Your task to perform on an android device: Open the Play Movies app and select the watchlist tab. Image 0: 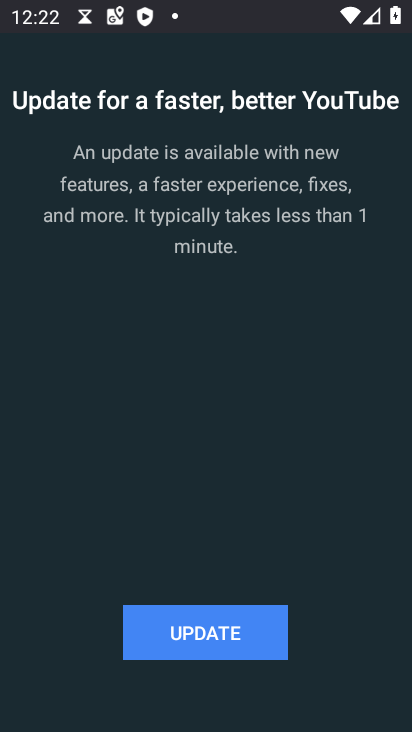
Step 0: press home button
Your task to perform on an android device: Open the Play Movies app and select the watchlist tab. Image 1: 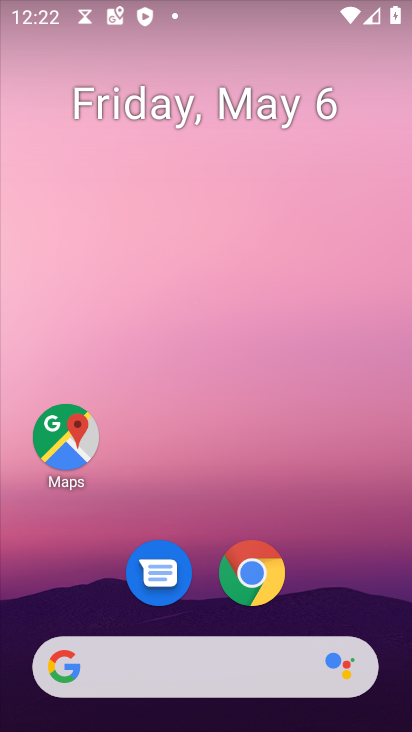
Step 1: drag from (323, 601) to (341, 246)
Your task to perform on an android device: Open the Play Movies app and select the watchlist tab. Image 2: 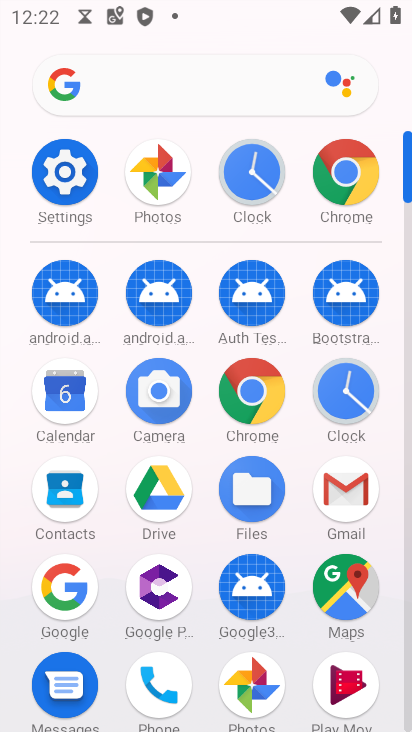
Step 2: click (336, 677)
Your task to perform on an android device: Open the Play Movies app and select the watchlist tab. Image 3: 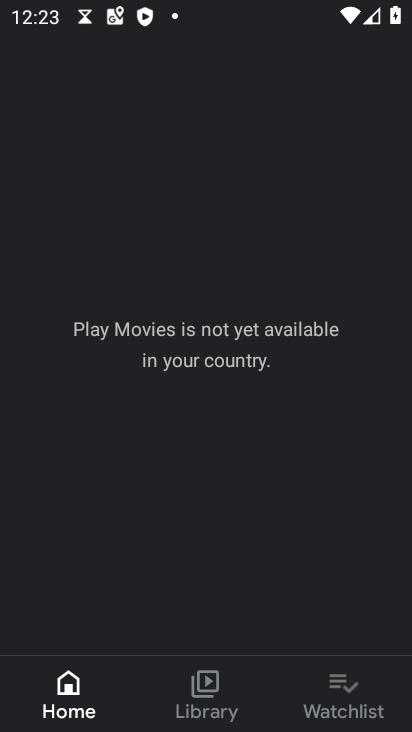
Step 3: click (327, 691)
Your task to perform on an android device: Open the Play Movies app and select the watchlist tab. Image 4: 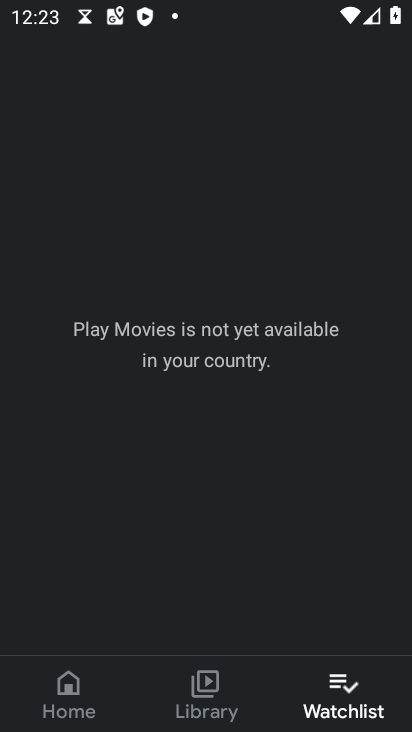
Step 4: click (334, 688)
Your task to perform on an android device: Open the Play Movies app and select the watchlist tab. Image 5: 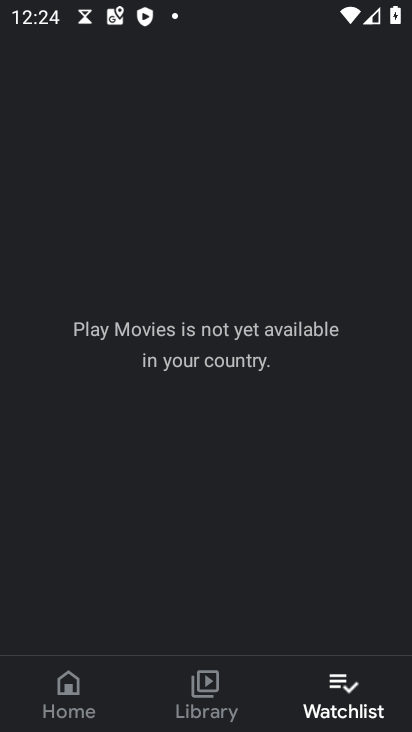
Step 5: task complete